Your task to perform on an android device: Search for a new eyeshadow Image 0: 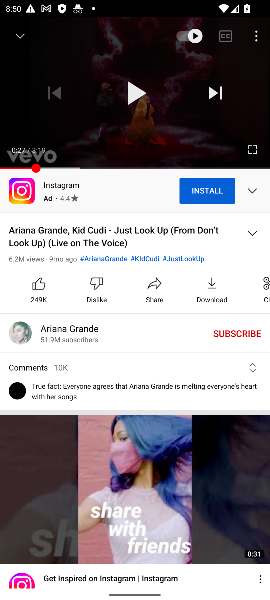
Step 0: press home button
Your task to perform on an android device: Search for a new eyeshadow Image 1: 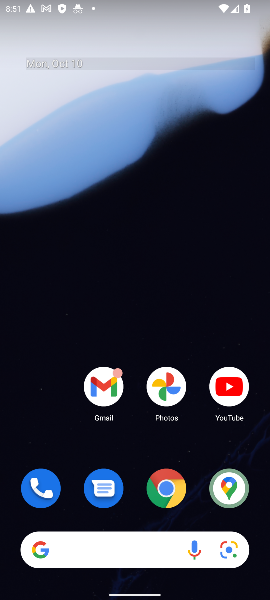
Step 1: drag from (129, 455) to (122, 0)
Your task to perform on an android device: Search for a new eyeshadow Image 2: 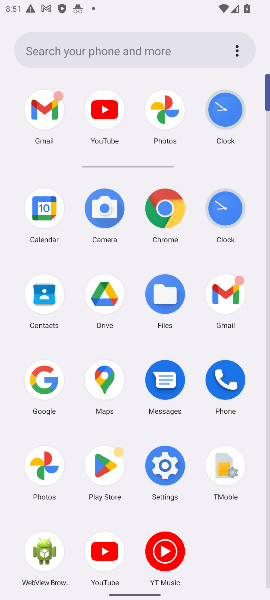
Step 2: click (162, 204)
Your task to perform on an android device: Search for a new eyeshadow Image 3: 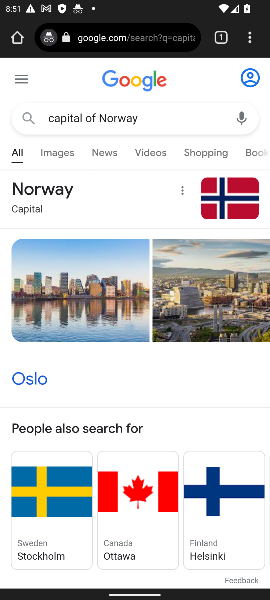
Step 3: click (138, 37)
Your task to perform on an android device: Search for a new eyeshadow Image 4: 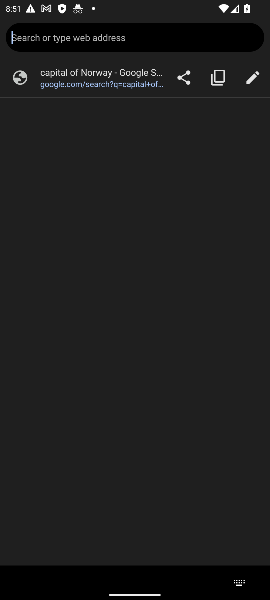
Step 4: type "new eyeshadow"
Your task to perform on an android device: Search for a new eyeshadow Image 5: 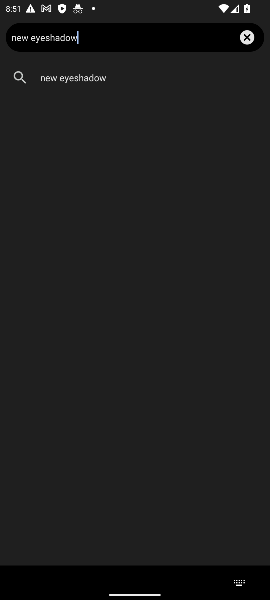
Step 5: press enter
Your task to perform on an android device: Search for a new eyeshadow Image 6: 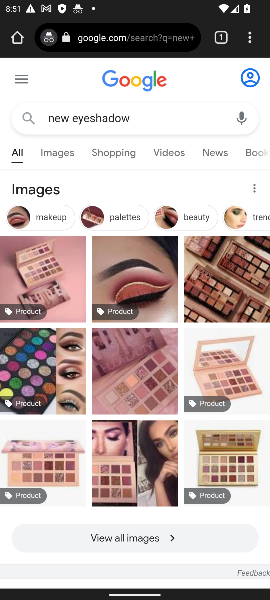
Step 6: task complete